Your task to perform on an android device: Open Google Chrome and open the bookmarks view Image 0: 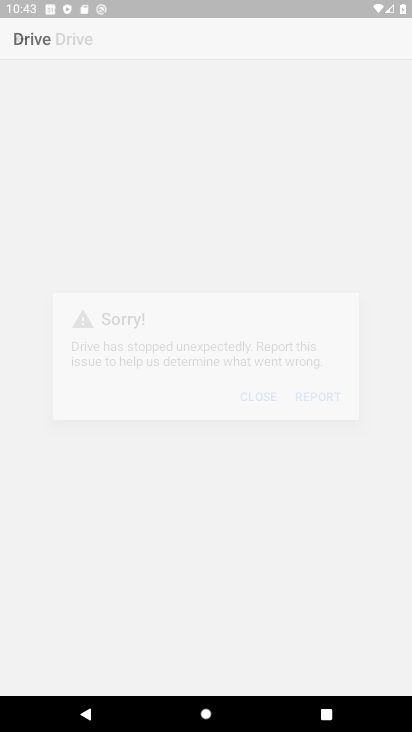
Step 0: click (63, 384)
Your task to perform on an android device: Open Google Chrome and open the bookmarks view Image 1: 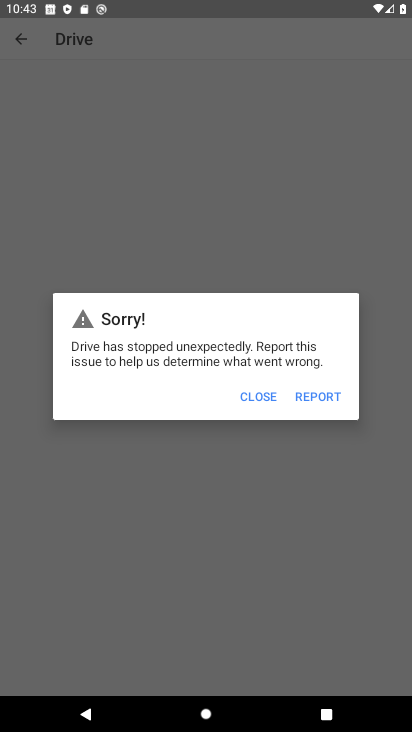
Step 1: press back button
Your task to perform on an android device: Open Google Chrome and open the bookmarks view Image 2: 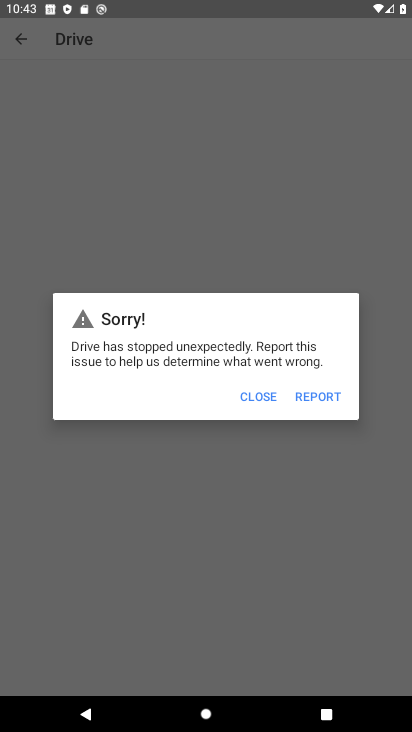
Step 2: press home button
Your task to perform on an android device: Open Google Chrome and open the bookmarks view Image 3: 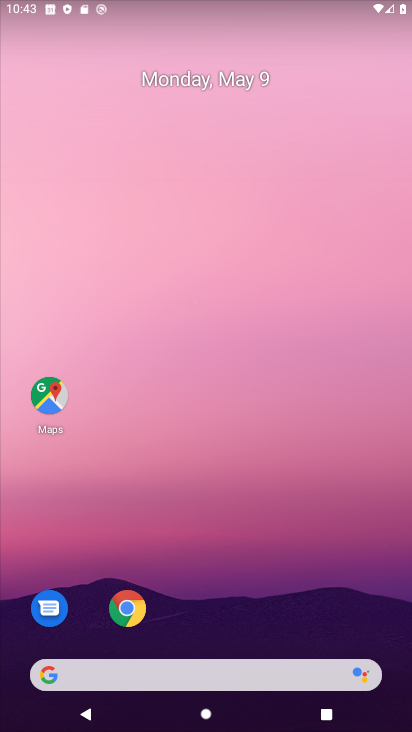
Step 3: click (118, 604)
Your task to perform on an android device: Open Google Chrome and open the bookmarks view Image 4: 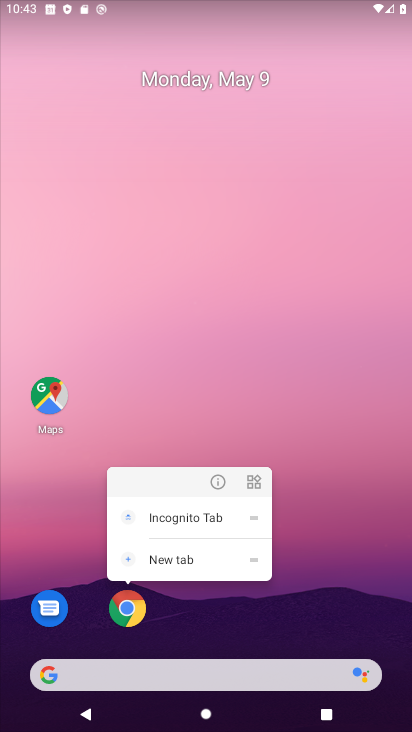
Step 4: click (142, 615)
Your task to perform on an android device: Open Google Chrome and open the bookmarks view Image 5: 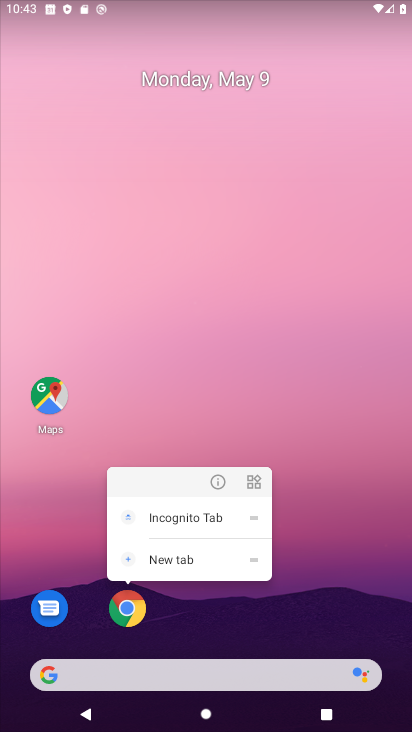
Step 5: click (135, 608)
Your task to perform on an android device: Open Google Chrome and open the bookmarks view Image 6: 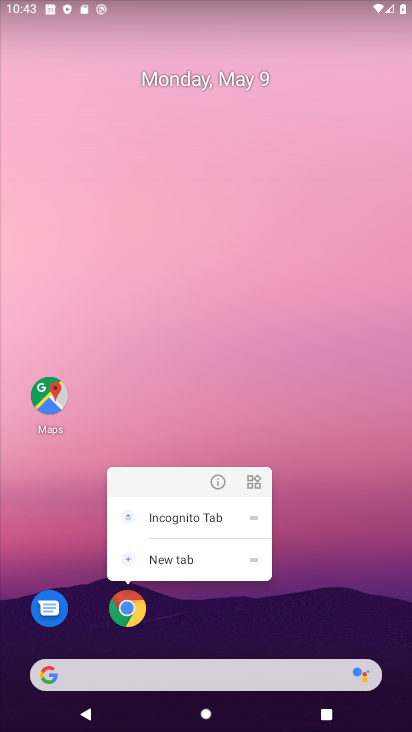
Step 6: click (130, 607)
Your task to perform on an android device: Open Google Chrome and open the bookmarks view Image 7: 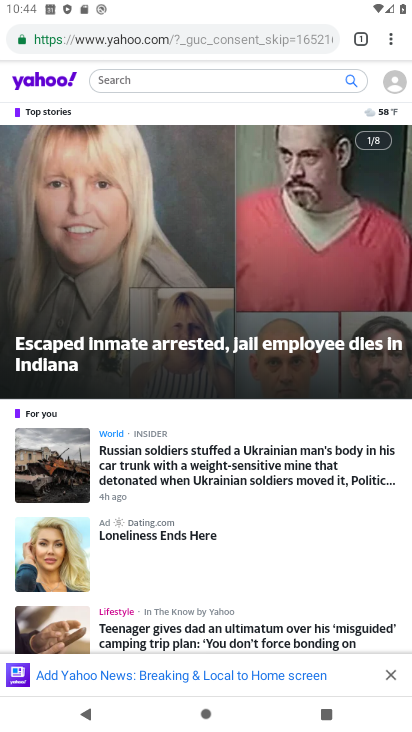
Step 7: task complete